Your task to perform on an android device: see sites visited before in the chrome app Image 0: 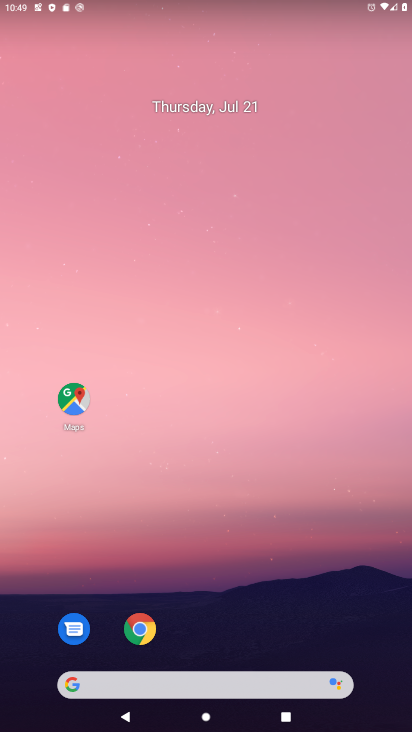
Step 0: click (135, 637)
Your task to perform on an android device: see sites visited before in the chrome app Image 1: 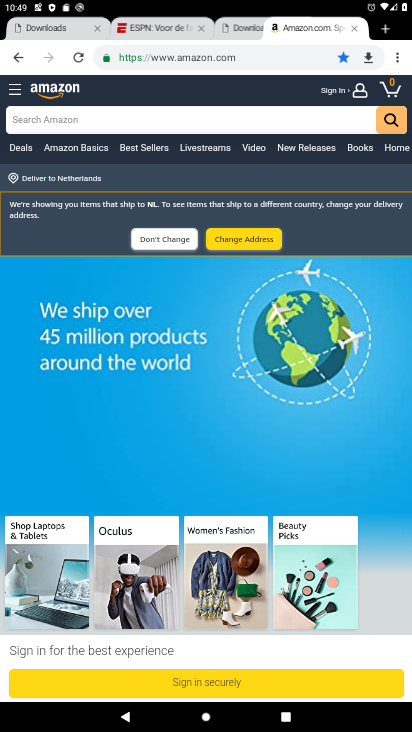
Step 1: click (403, 62)
Your task to perform on an android device: see sites visited before in the chrome app Image 2: 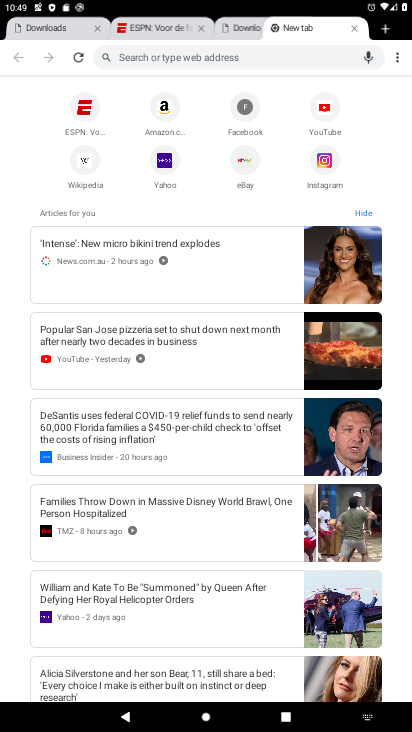
Step 2: click (403, 62)
Your task to perform on an android device: see sites visited before in the chrome app Image 3: 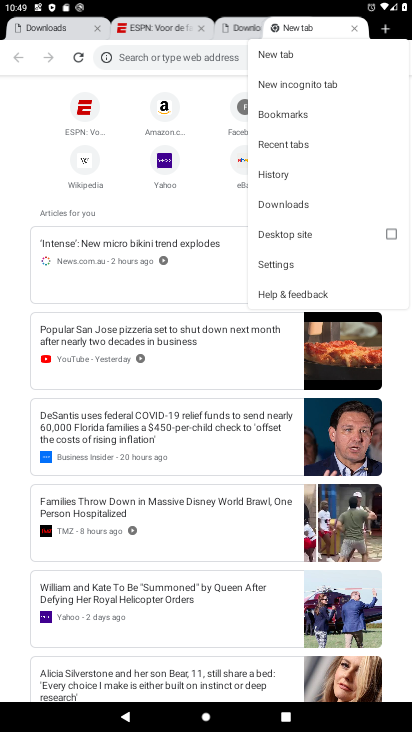
Step 3: click (317, 149)
Your task to perform on an android device: see sites visited before in the chrome app Image 4: 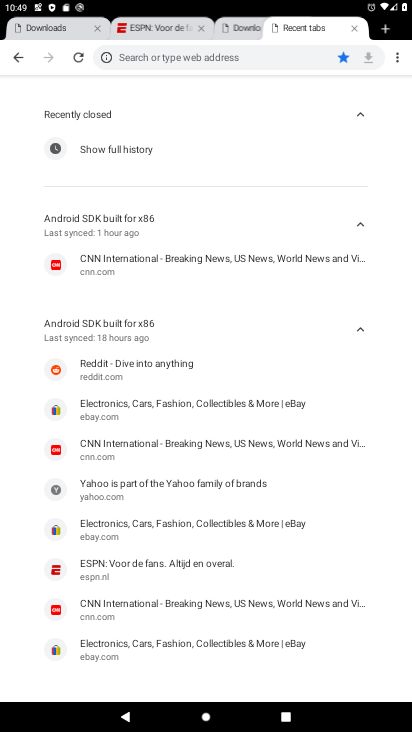
Step 4: task complete